Your task to perform on an android device: create a new album in the google photos Image 0: 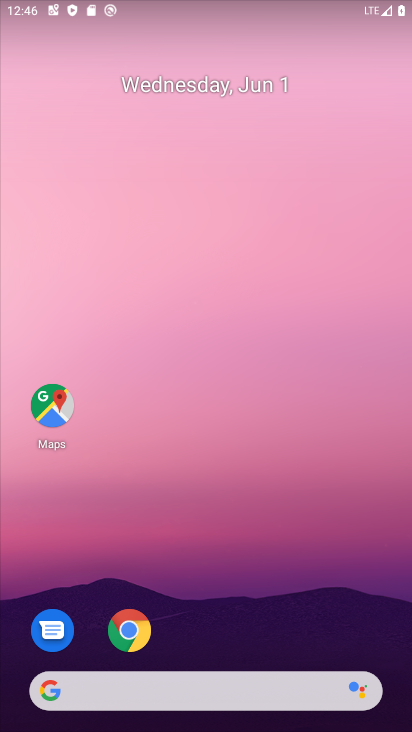
Step 0: press home button
Your task to perform on an android device: create a new album in the google photos Image 1: 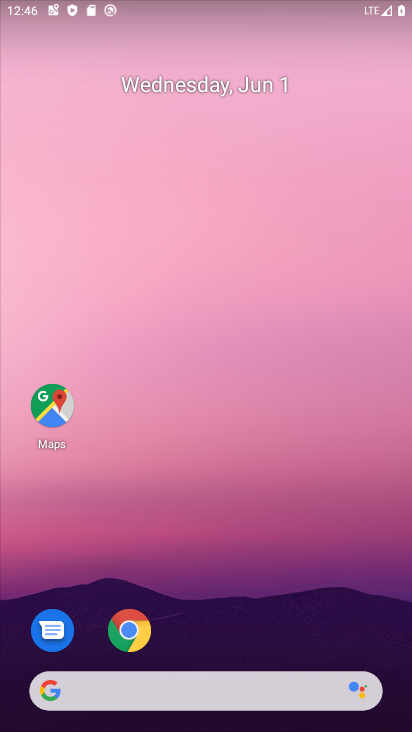
Step 1: drag from (323, 575) to (321, 195)
Your task to perform on an android device: create a new album in the google photos Image 2: 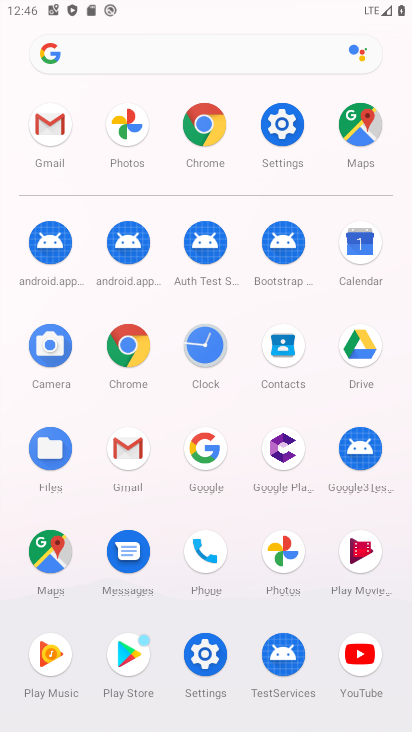
Step 2: click (132, 132)
Your task to perform on an android device: create a new album in the google photos Image 3: 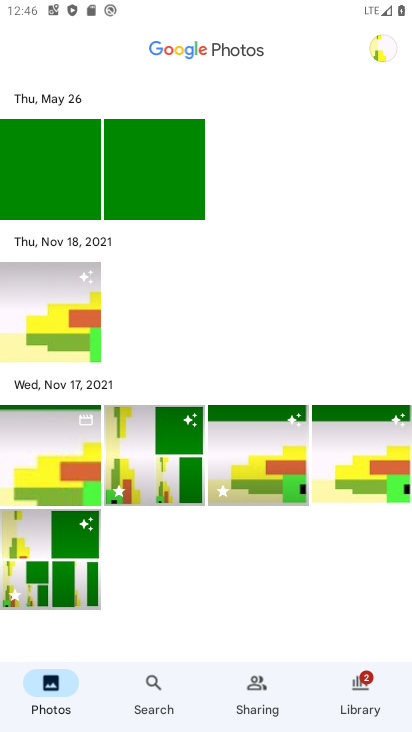
Step 3: click (56, 168)
Your task to perform on an android device: create a new album in the google photos Image 4: 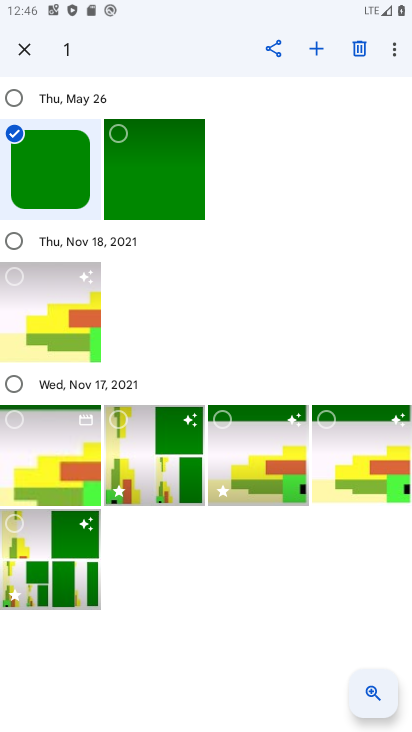
Step 4: click (191, 183)
Your task to perform on an android device: create a new album in the google photos Image 5: 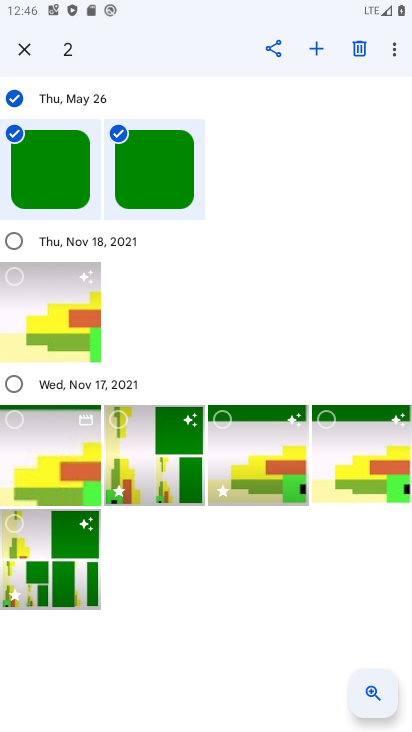
Step 5: click (319, 47)
Your task to perform on an android device: create a new album in the google photos Image 6: 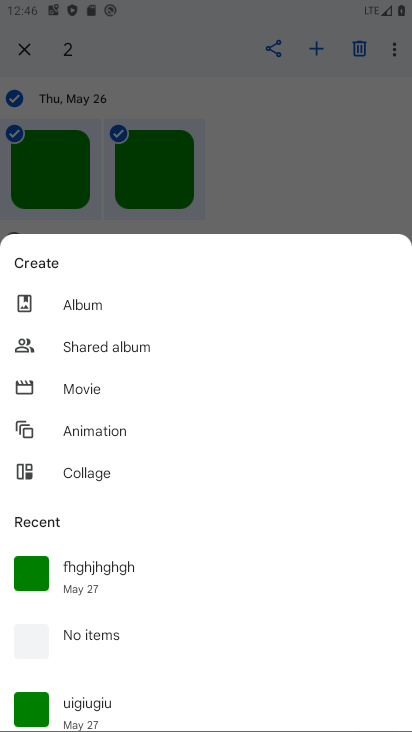
Step 6: click (84, 306)
Your task to perform on an android device: create a new album in the google photos Image 7: 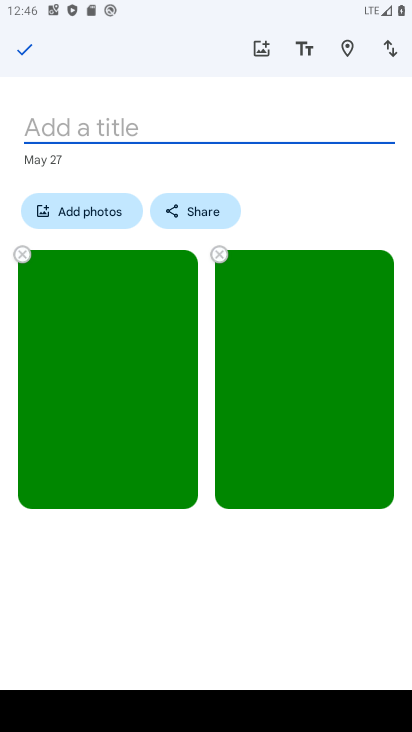
Step 7: type "cfgcfncbvvbbv"
Your task to perform on an android device: create a new album in the google photos Image 8: 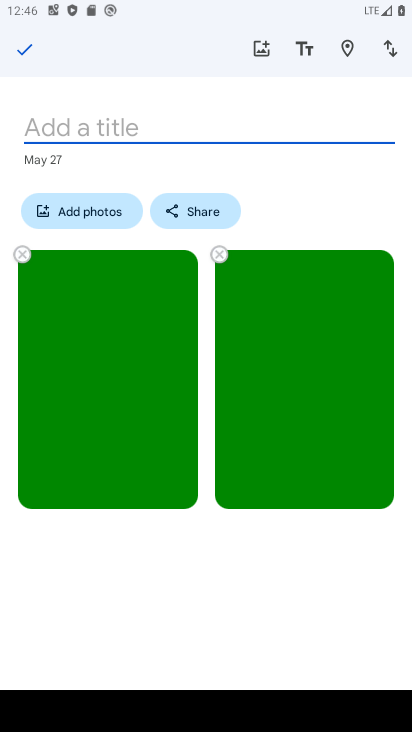
Step 8: click (221, 120)
Your task to perform on an android device: create a new album in the google photos Image 9: 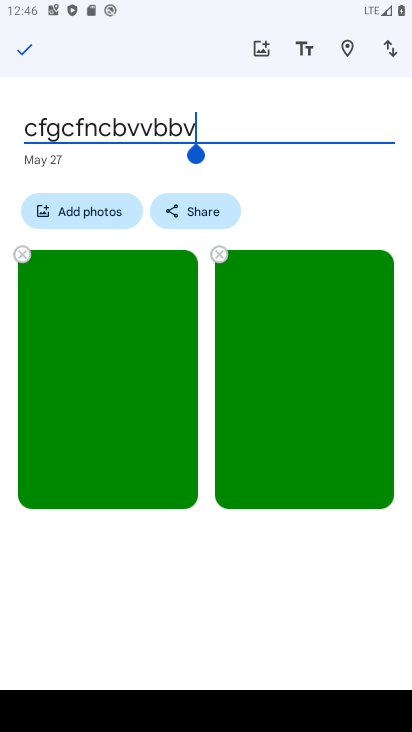
Step 9: click (26, 47)
Your task to perform on an android device: create a new album in the google photos Image 10: 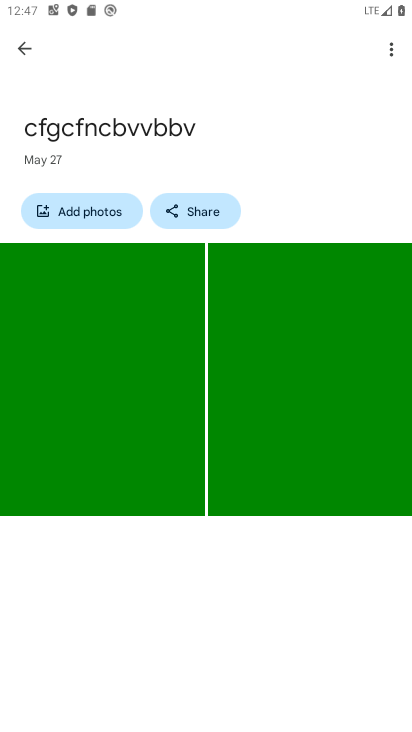
Step 10: task complete